Your task to perform on an android device: Open the phone app and click the voicemail tab. Image 0: 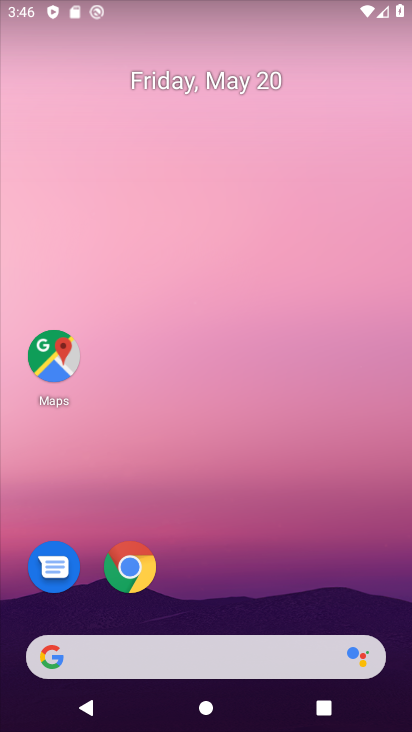
Step 0: drag from (184, 618) to (241, 40)
Your task to perform on an android device: Open the phone app and click the voicemail tab. Image 1: 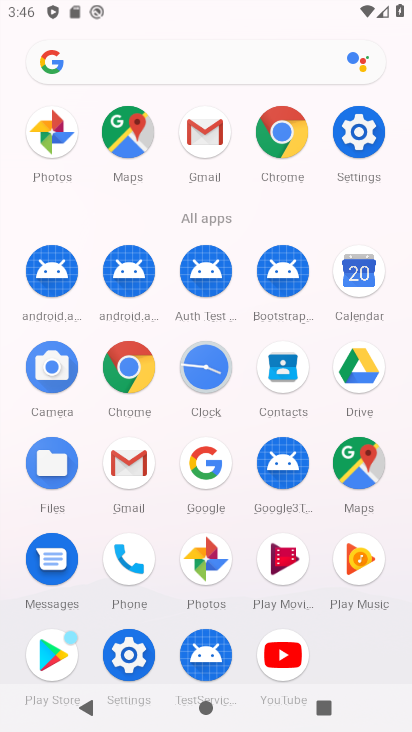
Step 1: click (125, 575)
Your task to perform on an android device: Open the phone app and click the voicemail tab. Image 2: 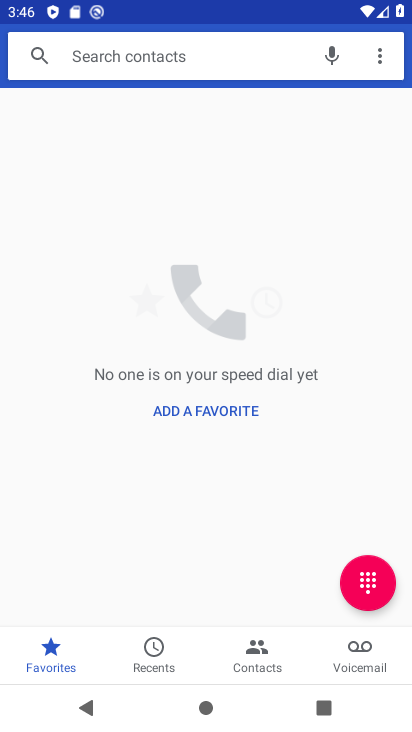
Step 2: click (371, 678)
Your task to perform on an android device: Open the phone app and click the voicemail tab. Image 3: 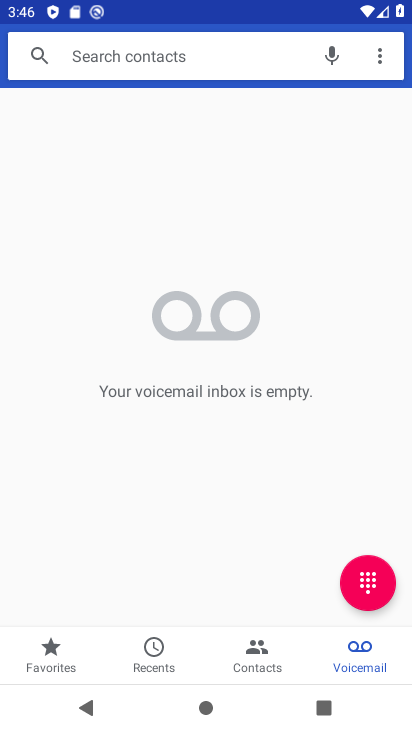
Step 3: task complete